Your task to perform on an android device: check storage Image 0: 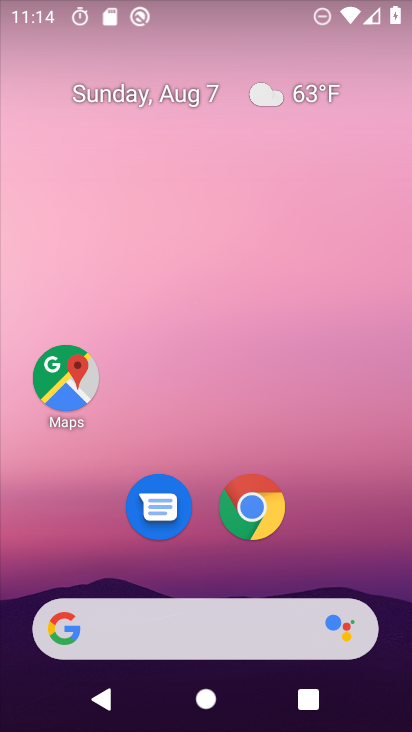
Step 0: drag from (333, 535) to (17, 299)
Your task to perform on an android device: check storage Image 1: 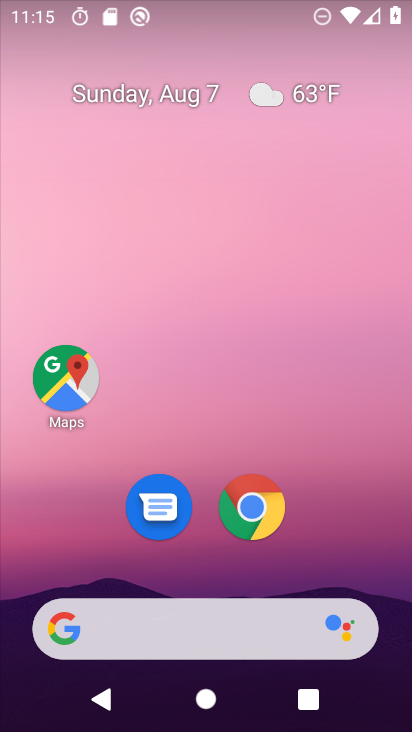
Step 1: drag from (347, 530) to (195, 36)
Your task to perform on an android device: check storage Image 2: 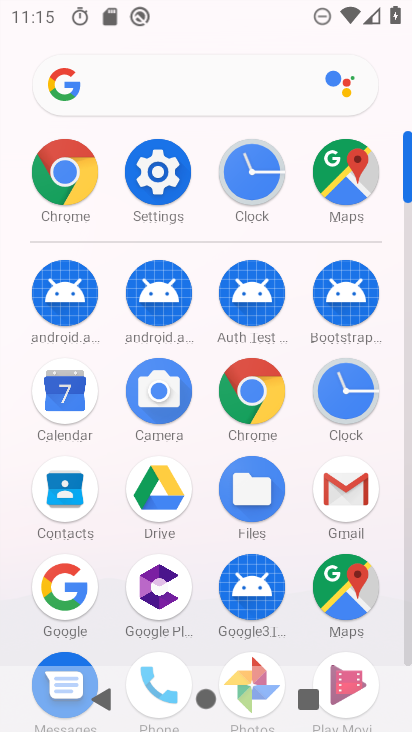
Step 2: drag from (199, 473) to (228, 162)
Your task to perform on an android device: check storage Image 3: 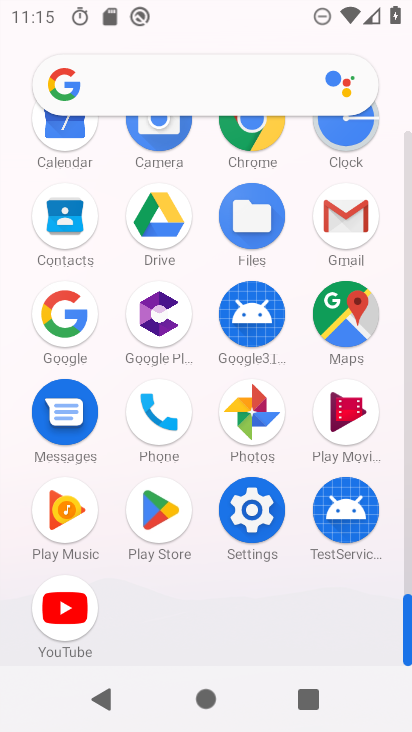
Step 3: click (254, 502)
Your task to perform on an android device: check storage Image 4: 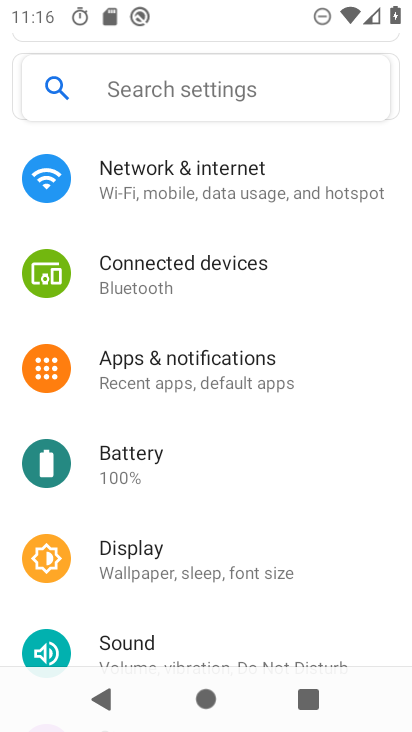
Step 4: drag from (190, 520) to (214, 114)
Your task to perform on an android device: check storage Image 5: 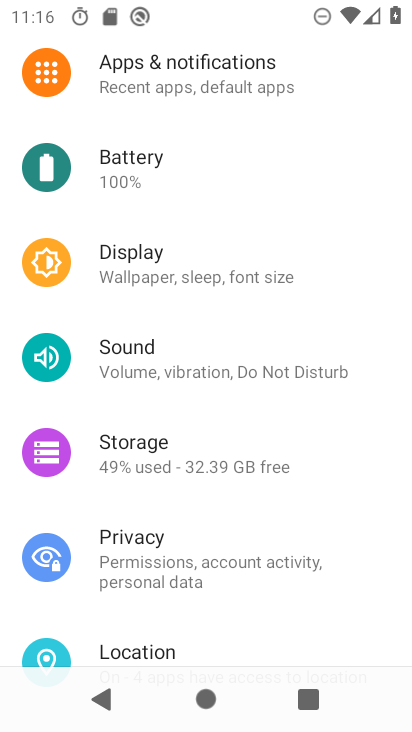
Step 5: click (147, 456)
Your task to perform on an android device: check storage Image 6: 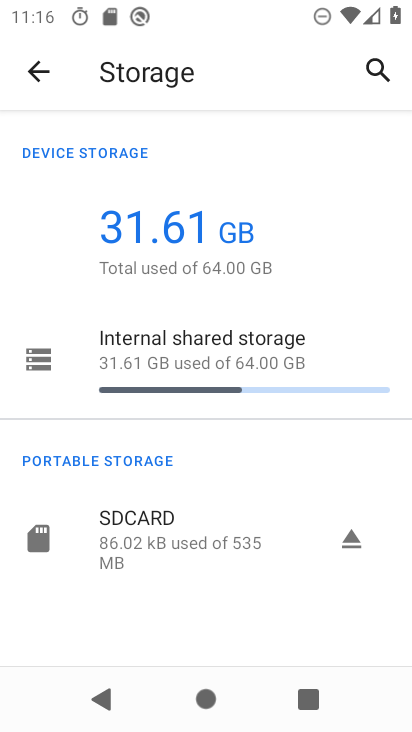
Step 6: task complete